Your task to perform on an android device: delete the emails in spam in the gmail app Image 0: 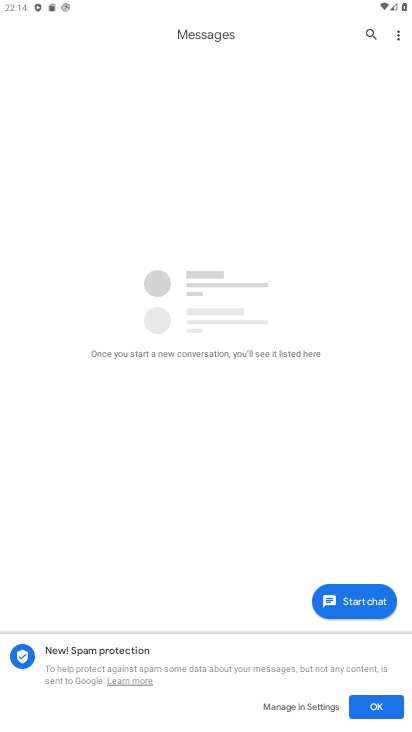
Step 0: press home button
Your task to perform on an android device: delete the emails in spam in the gmail app Image 1: 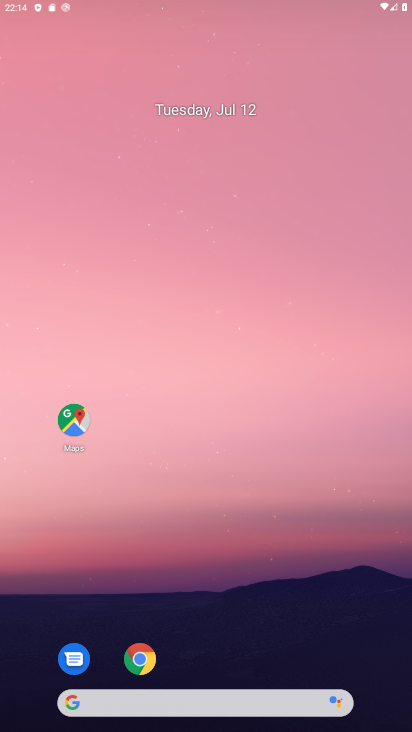
Step 1: drag from (248, 593) to (235, 303)
Your task to perform on an android device: delete the emails in spam in the gmail app Image 2: 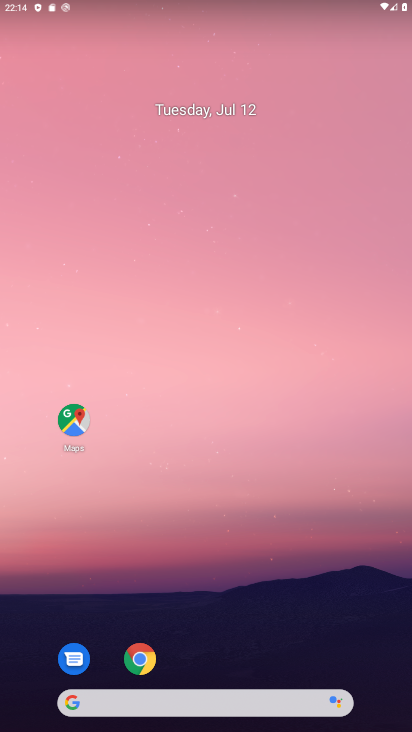
Step 2: click (199, 296)
Your task to perform on an android device: delete the emails in spam in the gmail app Image 3: 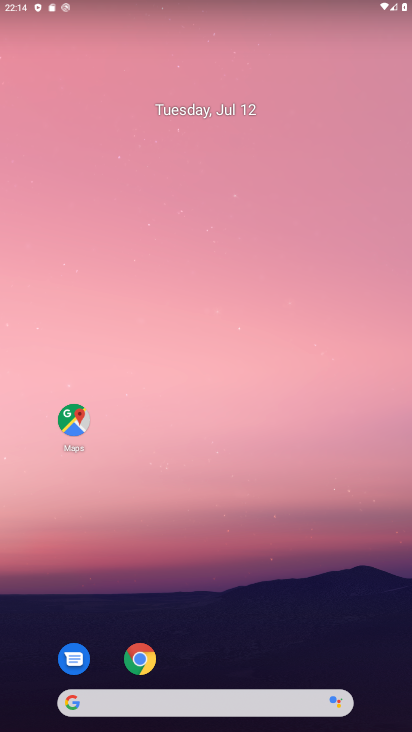
Step 3: drag from (262, 568) to (260, 363)
Your task to perform on an android device: delete the emails in spam in the gmail app Image 4: 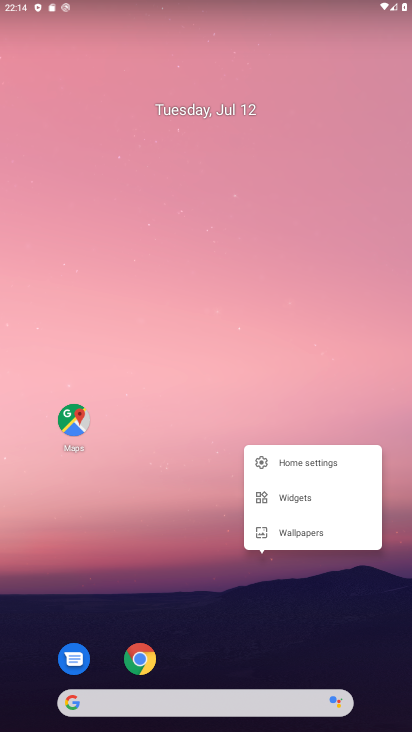
Step 4: drag from (200, 643) to (213, 463)
Your task to perform on an android device: delete the emails in spam in the gmail app Image 5: 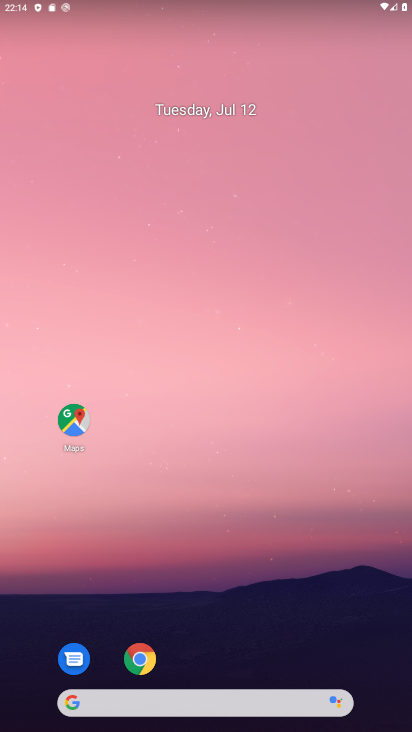
Step 5: drag from (223, 607) to (227, 378)
Your task to perform on an android device: delete the emails in spam in the gmail app Image 6: 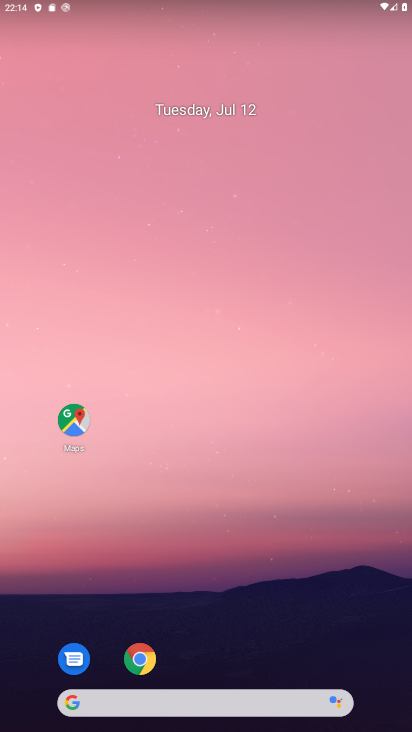
Step 6: drag from (235, 652) to (246, 95)
Your task to perform on an android device: delete the emails in spam in the gmail app Image 7: 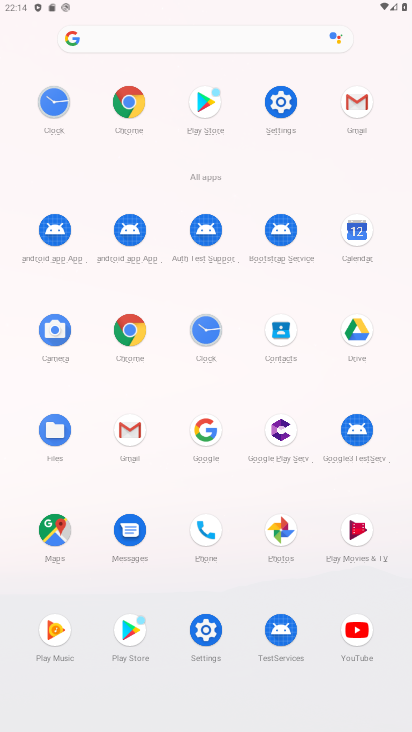
Step 7: click (352, 93)
Your task to perform on an android device: delete the emails in spam in the gmail app Image 8: 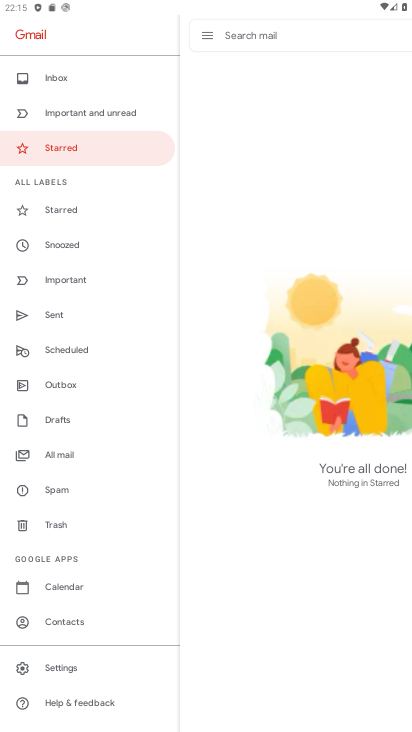
Step 8: click (73, 495)
Your task to perform on an android device: delete the emails in spam in the gmail app Image 9: 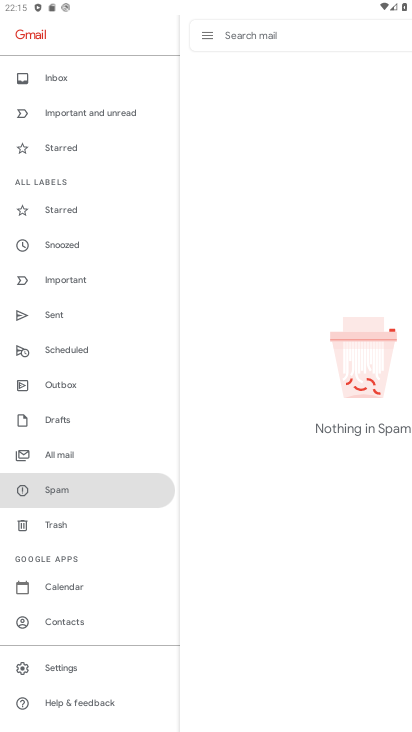
Step 9: task complete